Your task to perform on an android device: delete browsing data in the chrome app Image 0: 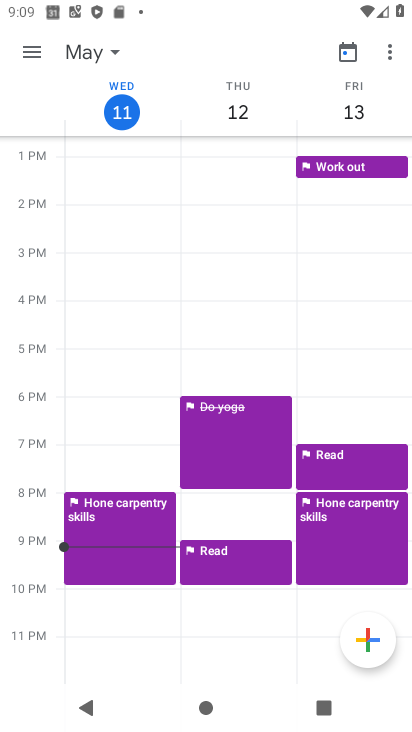
Step 0: press home button
Your task to perform on an android device: delete browsing data in the chrome app Image 1: 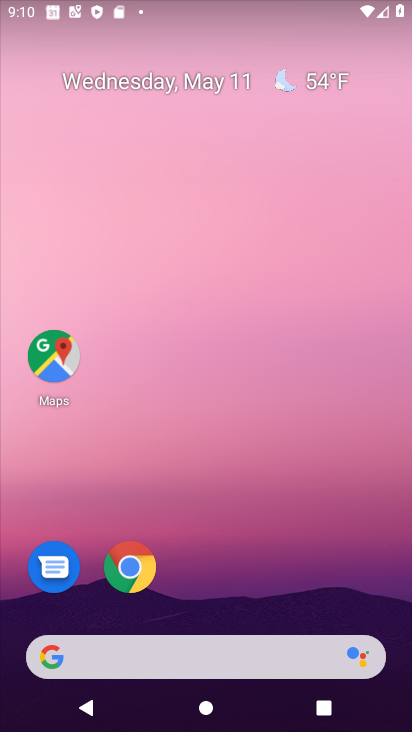
Step 1: drag from (221, 558) to (405, 82)
Your task to perform on an android device: delete browsing data in the chrome app Image 2: 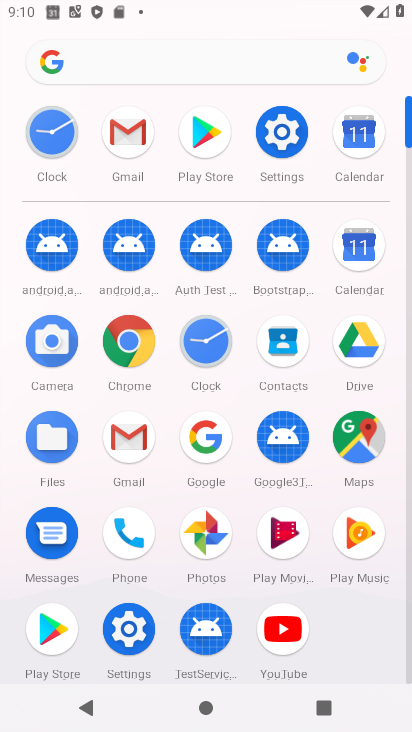
Step 2: click (138, 351)
Your task to perform on an android device: delete browsing data in the chrome app Image 3: 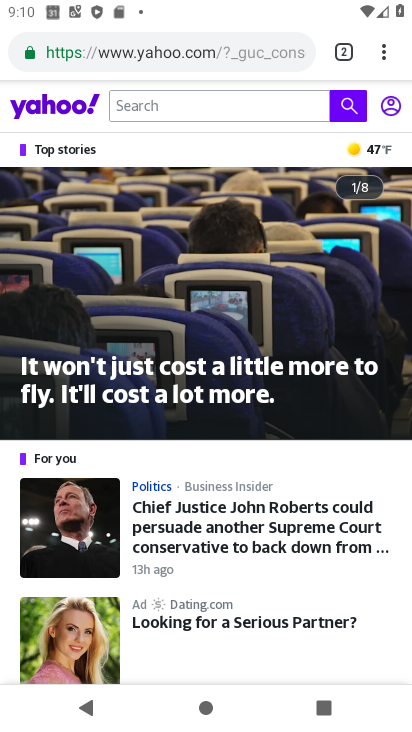
Step 3: click (384, 60)
Your task to perform on an android device: delete browsing data in the chrome app Image 4: 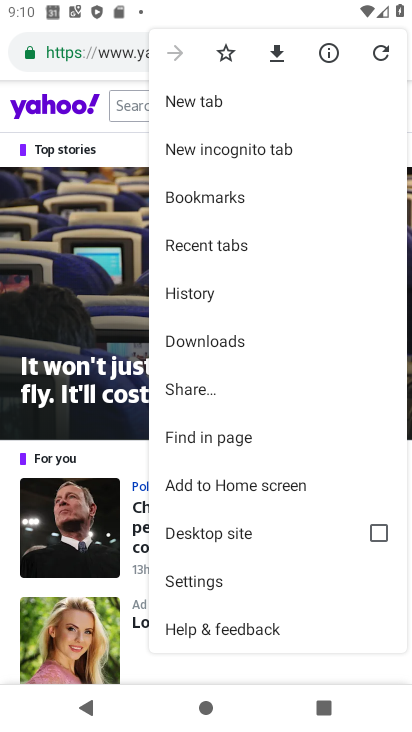
Step 4: click (186, 579)
Your task to perform on an android device: delete browsing data in the chrome app Image 5: 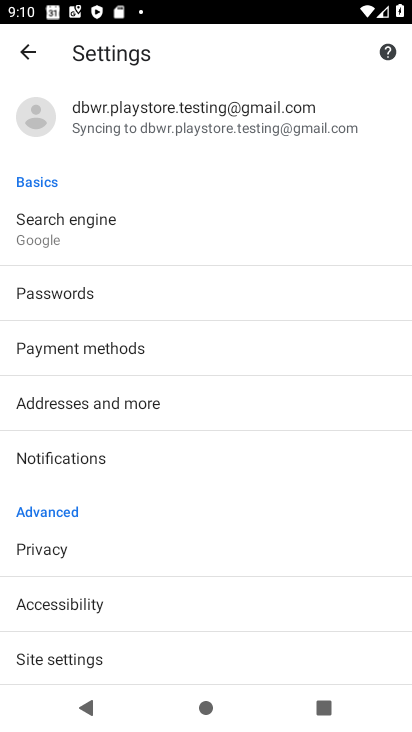
Step 5: drag from (82, 646) to (131, 326)
Your task to perform on an android device: delete browsing data in the chrome app Image 6: 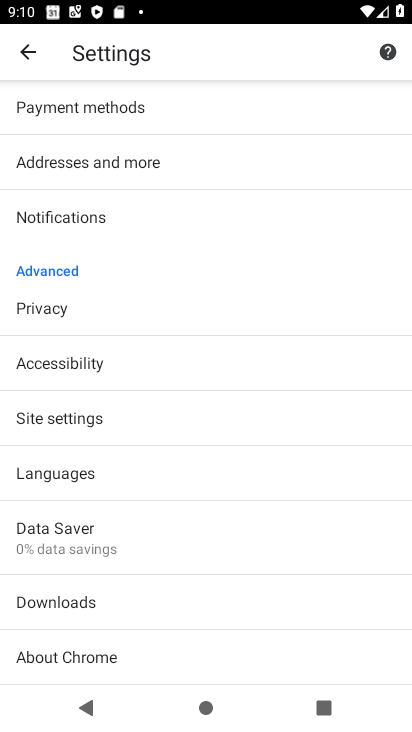
Step 6: click (37, 55)
Your task to perform on an android device: delete browsing data in the chrome app Image 7: 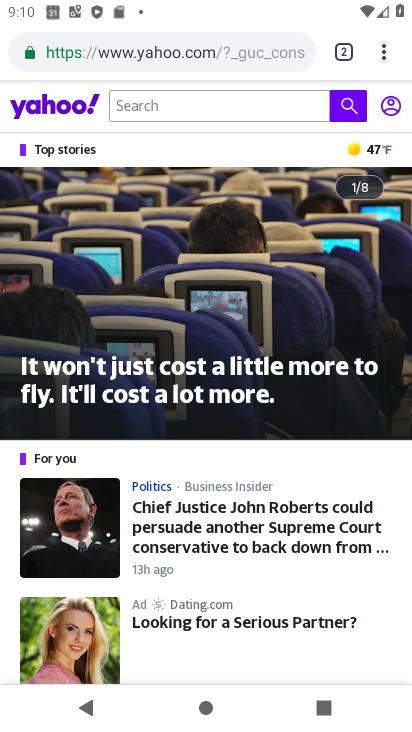
Step 7: click (377, 58)
Your task to perform on an android device: delete browsing data in the chrome app Image 8: 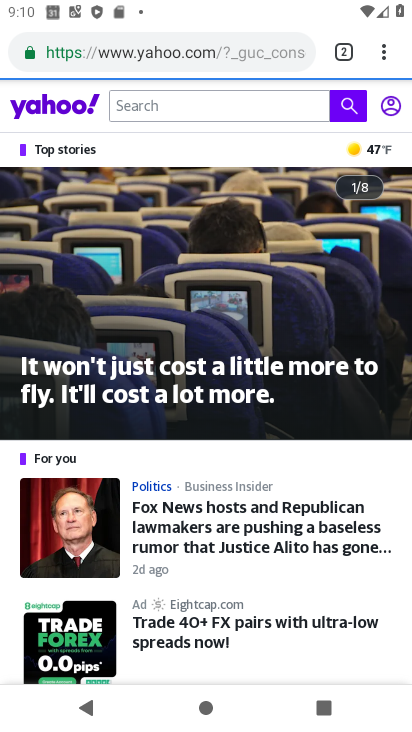
Step 8: click (380, 58)
Your task to perform on an android device: delete browsing data in the chrome app Image 9: 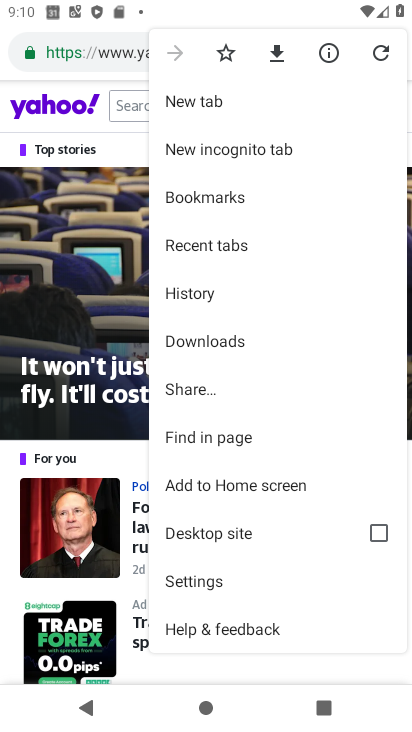
Step 9: click (208, 301)
Your task to perform on an android device: delete browsing data in the chrome app Image 10: 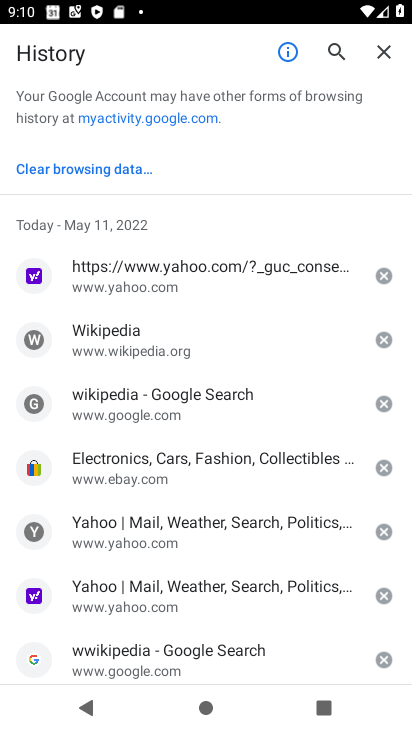
Step 10: click (95, 179)
Your task to perform on an android device: delete browsing data in the chrome app Image 11: 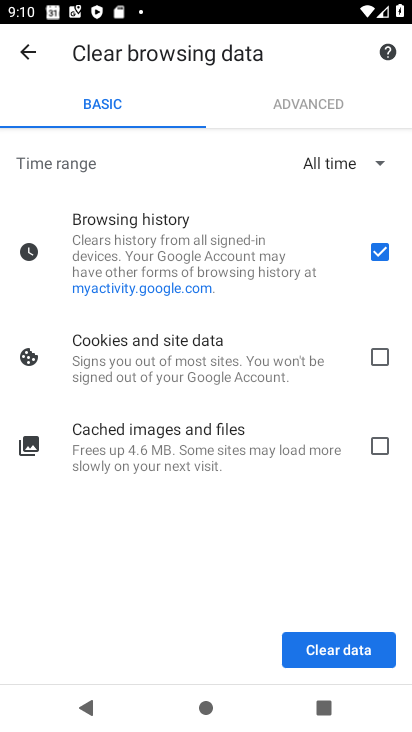
Step 11: click (319, 655)
Your task to perform on an android device: delete browsing data in the chrome app Image 12: 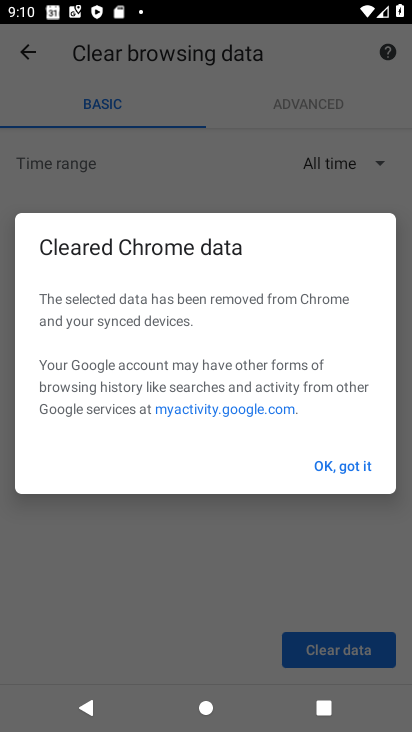
Step 12: click (342, 472)
Your task to perform on an android device: delete browsing data in the chrome app Image 13: 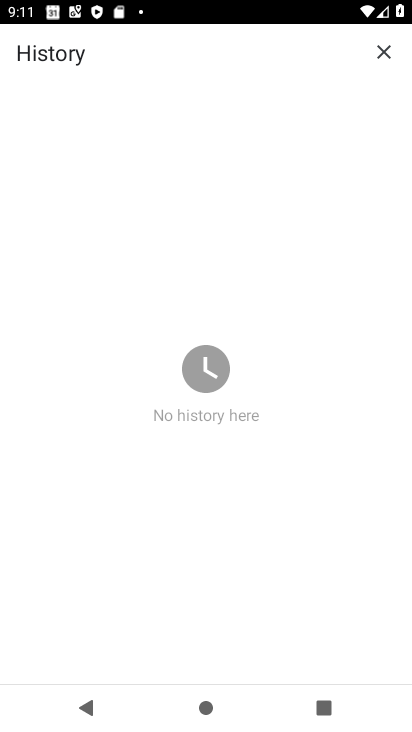
Step 13: task complete